Your task to perform on an android device: Open Youtube and go to "Your channel" Image 0: 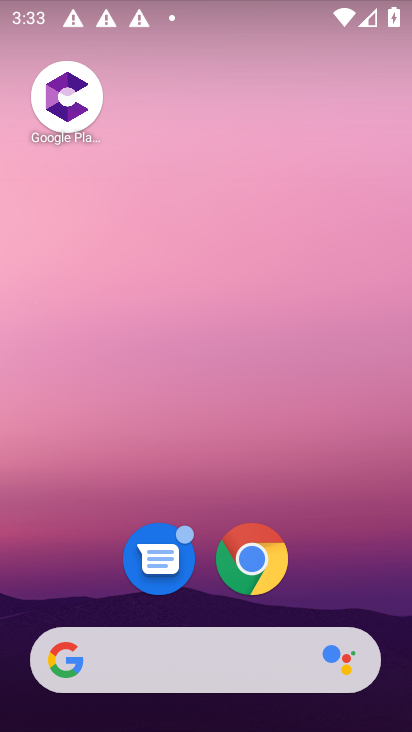
Step 0: drag from (216, 481) to (300, 2)
Your task to perform on an android device: Open Youtube and go to "Your channel" Image 1: 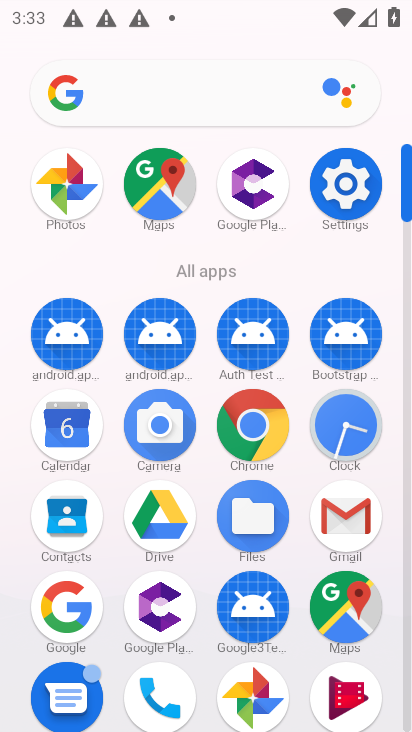
Step 1: drag from (216, 519) to (310, 27)
Your task to perform on an android device: Open Youtube and go to "Your channel" Image 2: 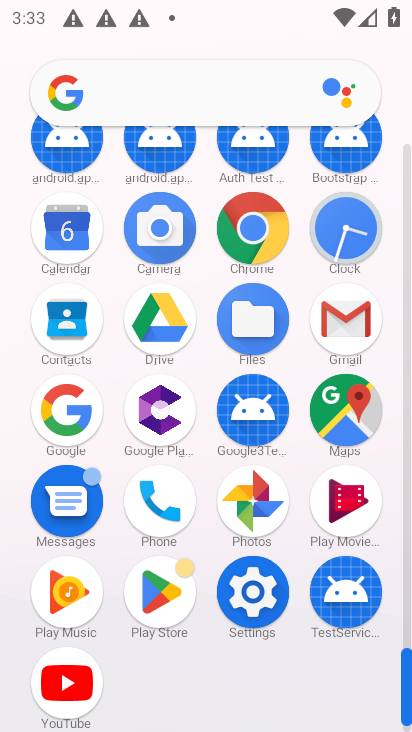
Step 2: click (84, 672)
Your task to perform on an android device: Open Youtube and go to "Your channel" Image 3: 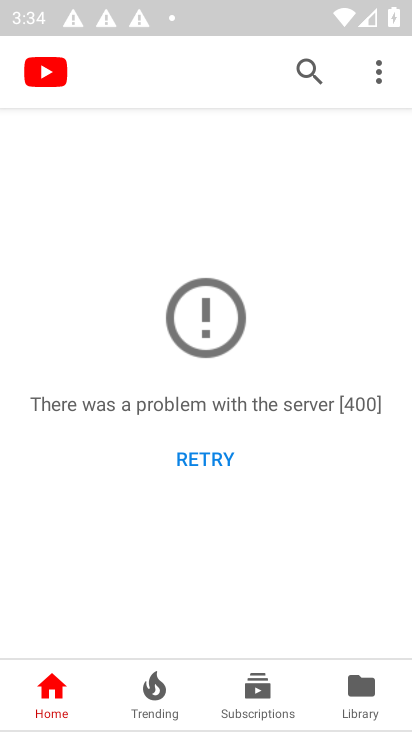
Step 3: click (375, 80)
Your task to perform on an android device: Open Youtube and go to "Your channel" Image 4: 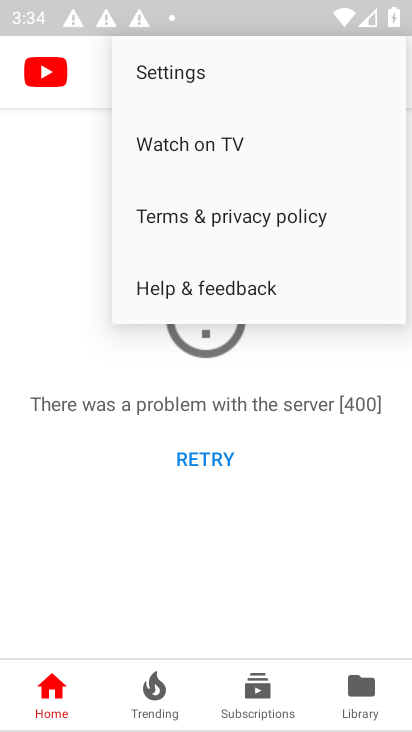
Step 4: task complete